Your task to perform on an android device: toggle notification dots Image 0: 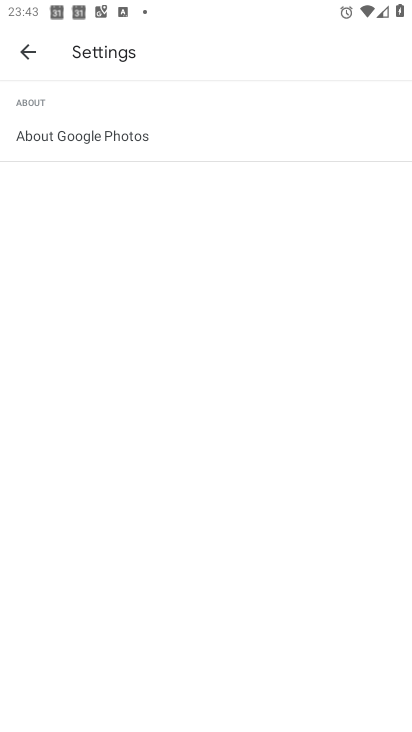
Step 0: press home button
Your task to perform on an android device: toggle notification dots Image 1: 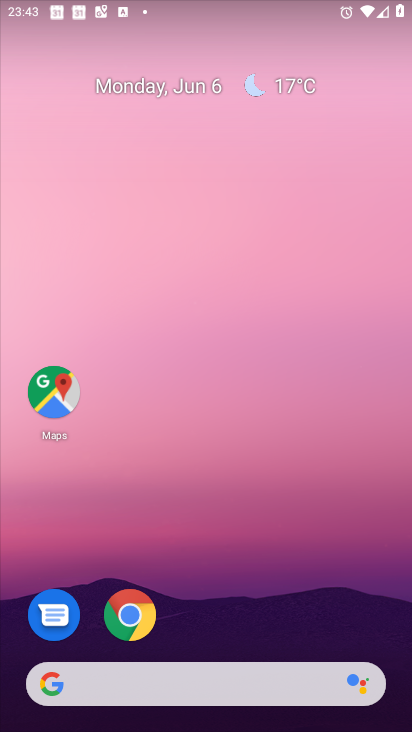
Step 1: drag from (389, 678) to (328, 127)
Your task to perform on an android device: toggle notification dots Image 2: 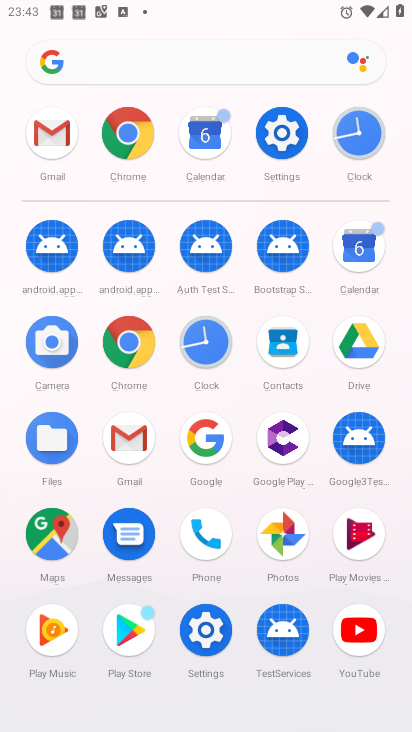
Step 2: click (206, 618)
Your task to perform on an android device: toggle notification dots Image 3: 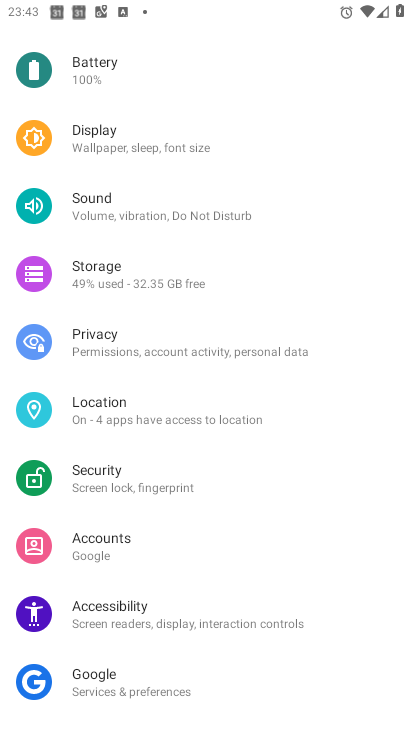
Step 3: drag from (250, 94) to (281, 559)
Your task to perform on an android device: toggle notification dots Image 4: 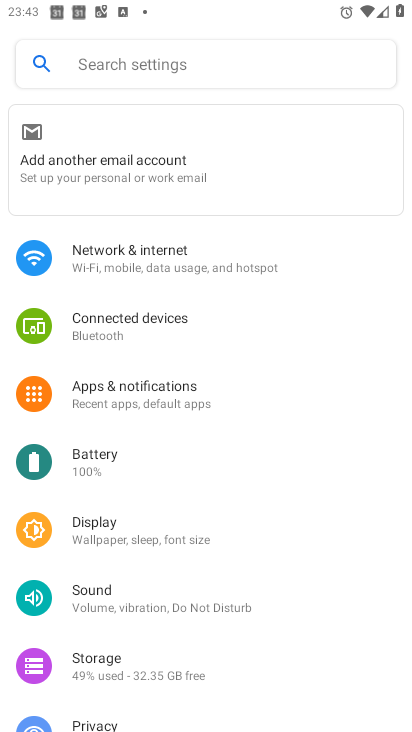
Step 4: click (122, 390)
Your task to perform on an android device: toggle notification dots Image 5: 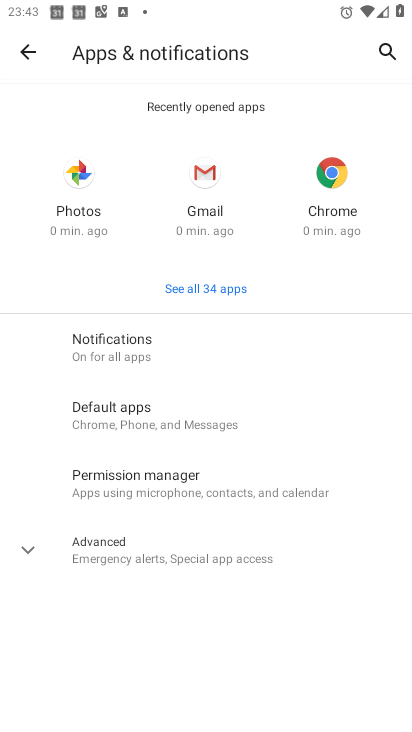
Step 5: click (87, 343)
Your task to perform on an android device: toggle notification dots Image 6: 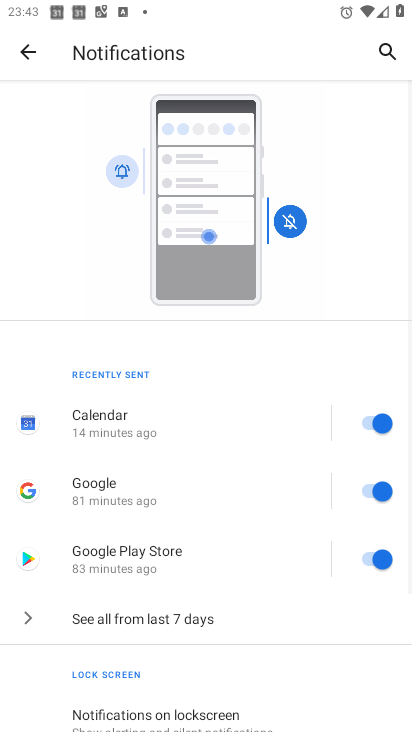
Step 6: drag from (270, 703) to (232, 50)
Your task to perform on an android device: toggle notification dots Image 7: 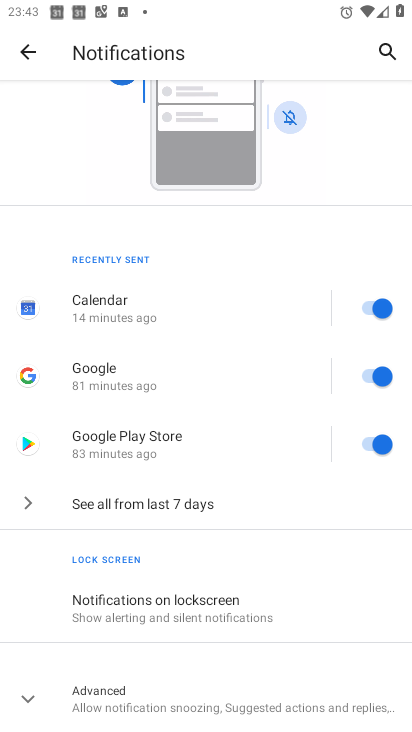
Step 7: click (16, 699)
Your task to perform on an android device: toggle notification dots Image 8: 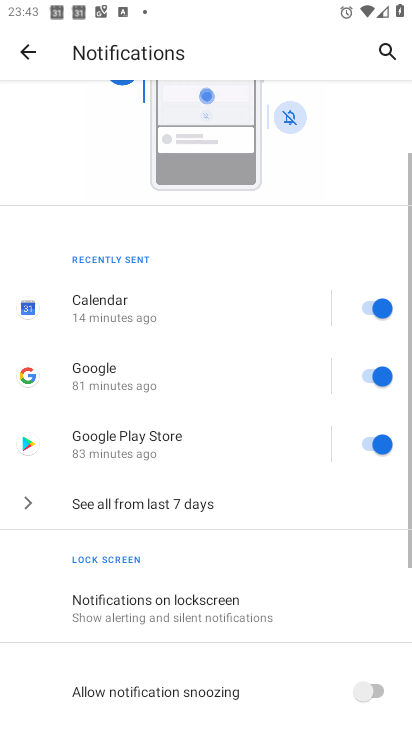
Step 8: drag from (42, 665) to (32, 246)
Your task to perform on an android device: toggle notification dots Image 9: 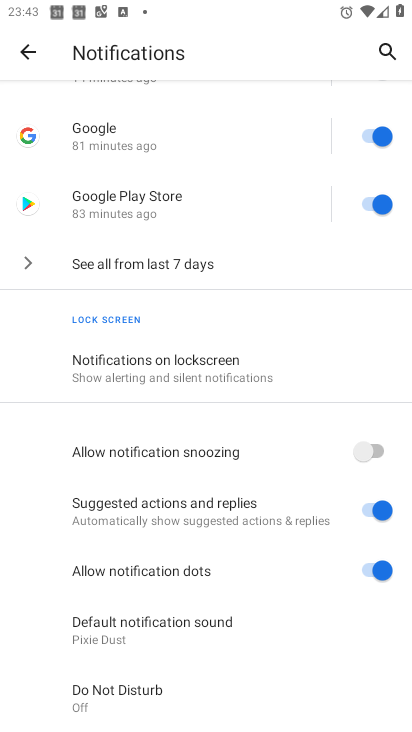
Step 9: click (372, 564)
Your task to perform on an android device: toggle notification dots Image 10: 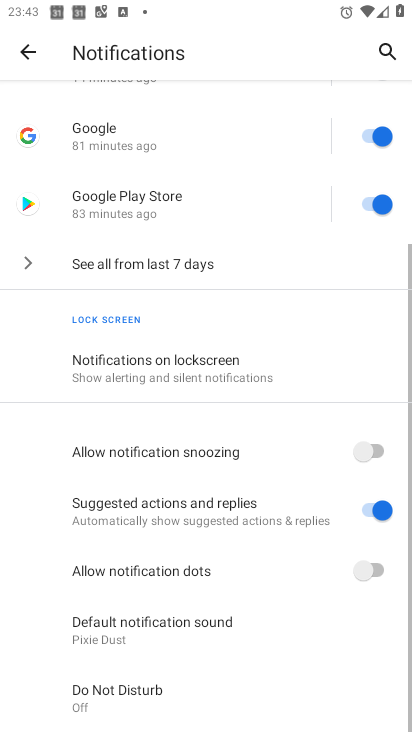
Step 10: task complete